Your task to perform on an android device: Open Yahoo.com Image 0: 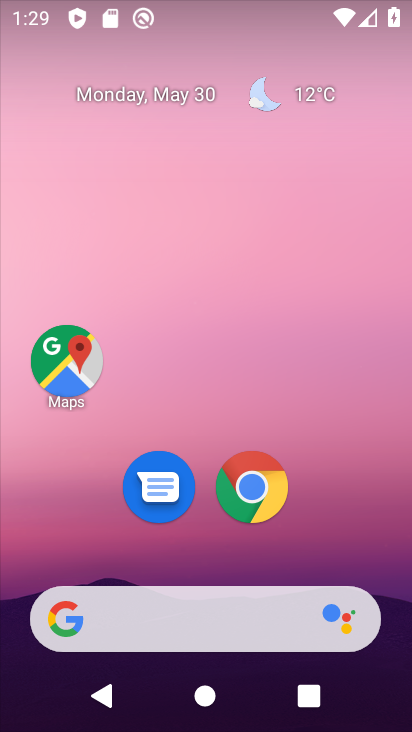
Step 0: click (247, 504)
Your task to perform on an android device: Open Yahoo.com Image 1: 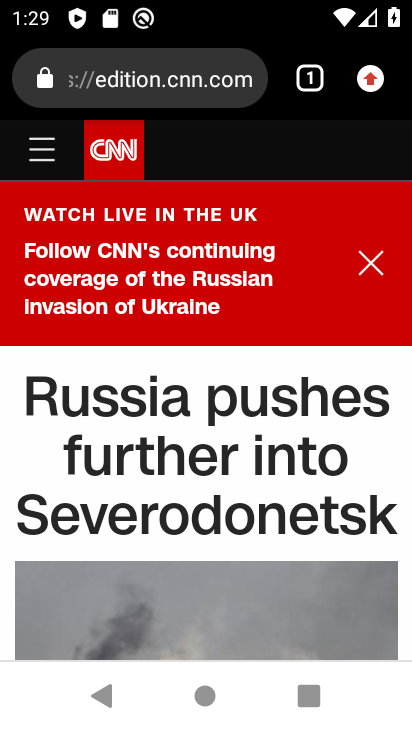
Step 1: drag from (365, 79) to (288, 220)
Your task to perform on an android device: Open Yahoo.com Image 2: 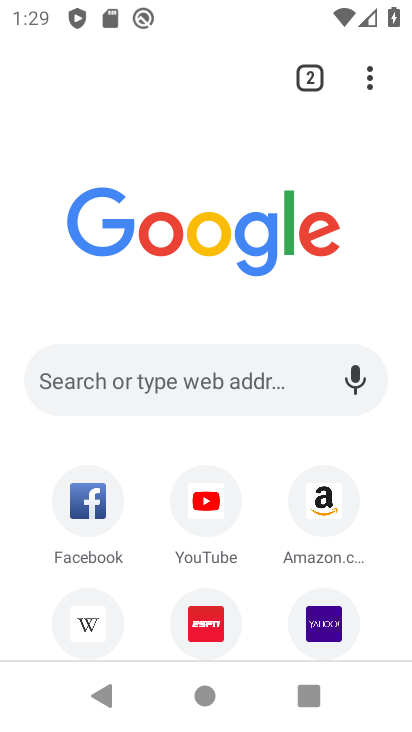
Step 2: click (324, 624)
Your task to perform on an android device: Open Yahoo.com Image 3: 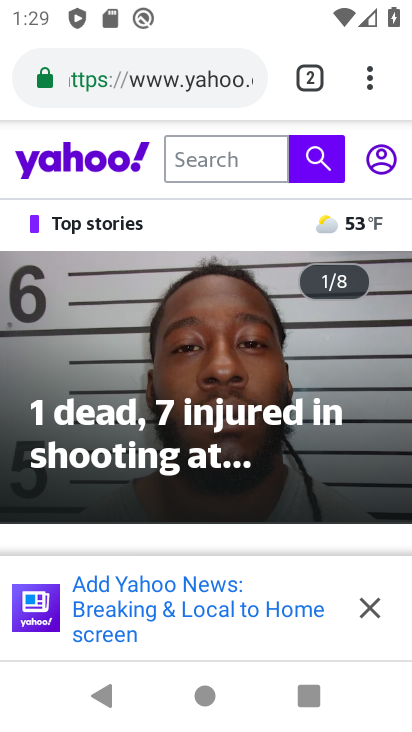
Step 3: task complete